Your task to perform on an android device: delete location history Image 0: 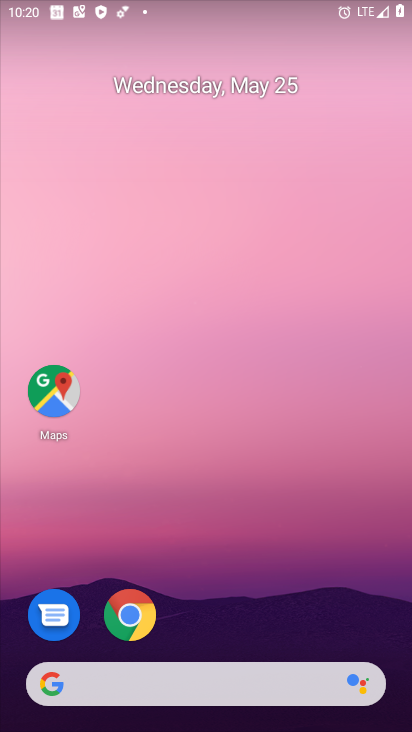
Step 0: drag from (270, 584) to (329, 13)
Your task to perform on an android device: delete location history Image 1: 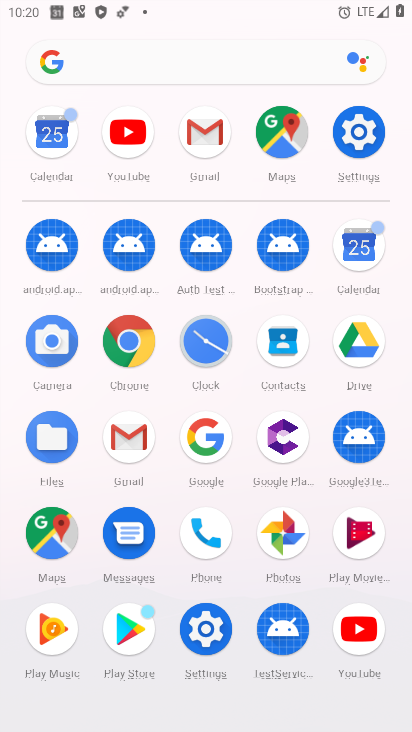
Step 1: click (362, 135)
Your task to perform on an android device: delete location history Image 2: 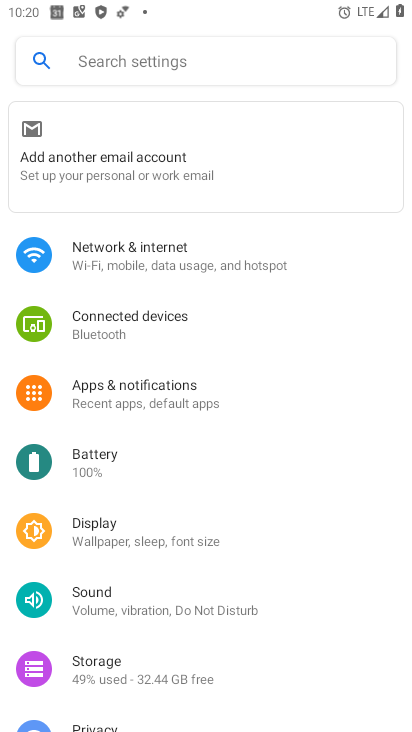
Step 2: press home button
Your task to perform on an android device: delete location history Image 3: 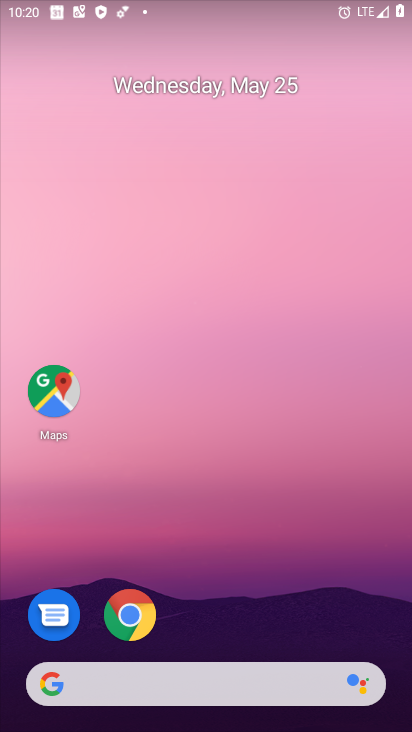
Step 3: click (49, 394)
Your task to perform on an android device: delete location history Image 4: 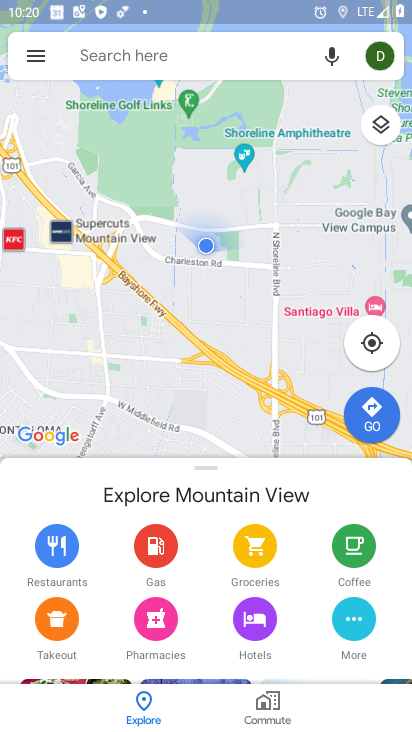
Step 4: click (39, 59)
Your task to perform on an android device: delete location history Image 5: 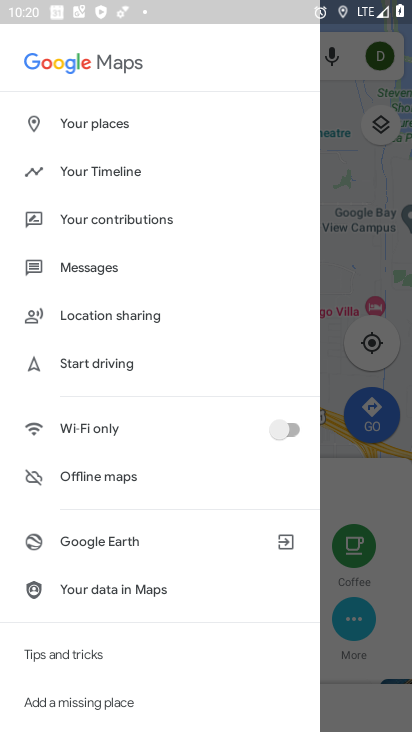
Step 5: click (101, 159)
Your task to perform on an android device: delete location history Image 6: 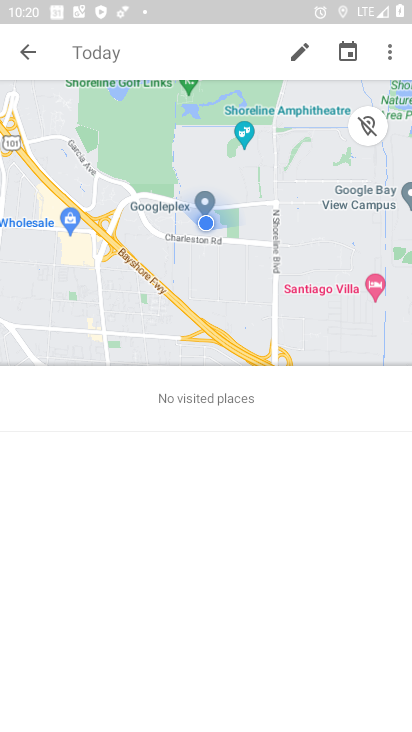
Step 6: click (387, 54)
Your task to perform on an android device: delete location history Image 7: 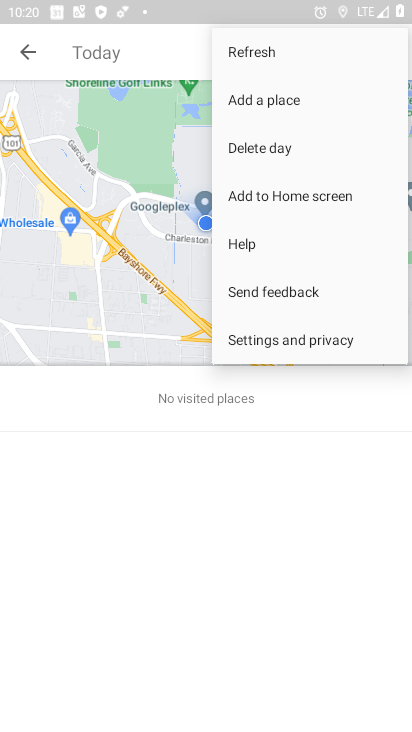
Step 7: click (299, 337)
Your task to perform on an android device: delete location history Image 8: 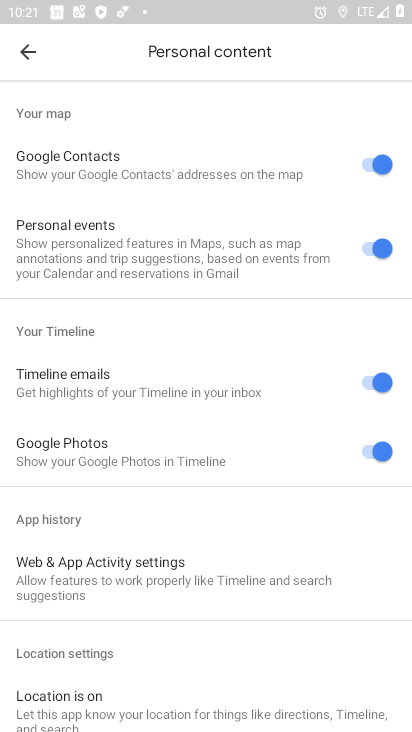
Step 8: drag from (210, 535) to (238, 137)
Your task to perform on an android device: delete location history Image 9: 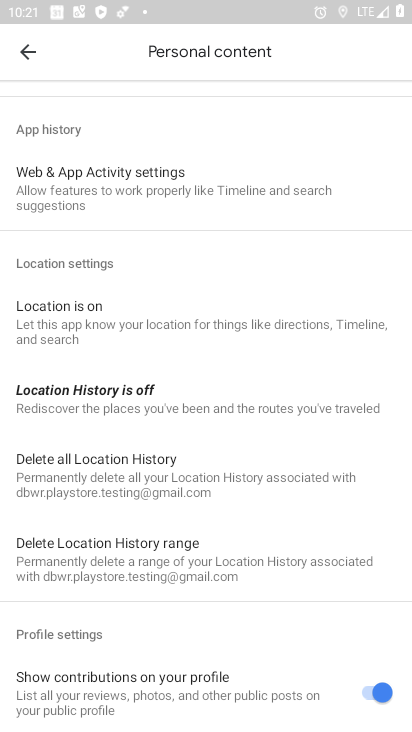
Step 9: click (168, 465)
Your task to perform on an android device: delete location history Image 10: 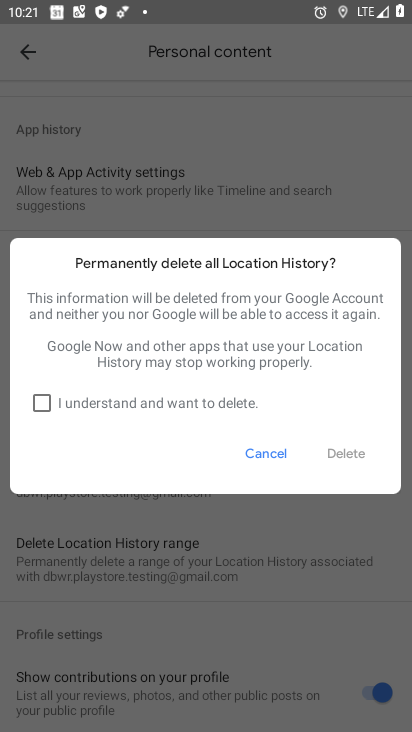
Step 10: click (39, 400)
Your task to perform on an android device: delete location history Image 11: 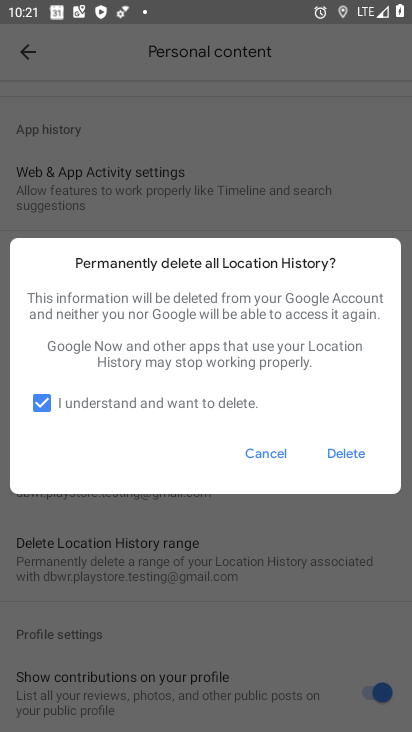
Step 11: click (345, 447)
Your task to perform on an android device: delete location history Image 12: 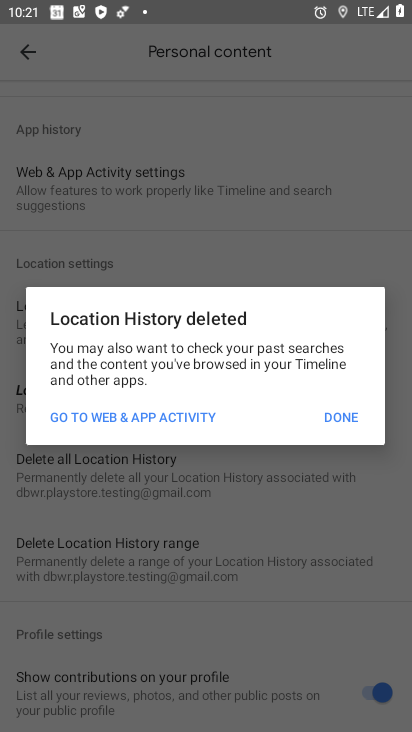
Step 12: click (343, 416)
Your task to perform on an android device: delete location history Image 13: 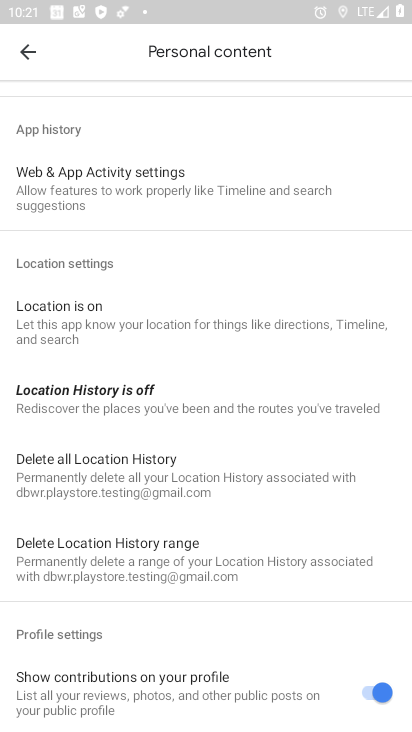
Step 13: task complete